Your task to perform on an android device: turn off smart reply in the gmail app Image 0: 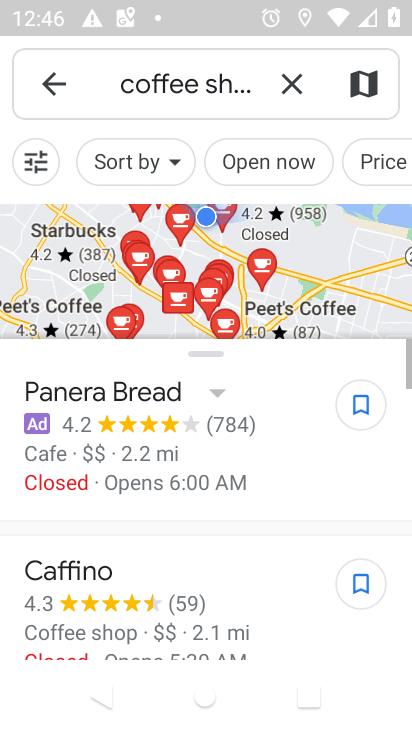
Step 0: press back button
Your task to perform on an android device: turn off smart reply in the gmail app Image 1: 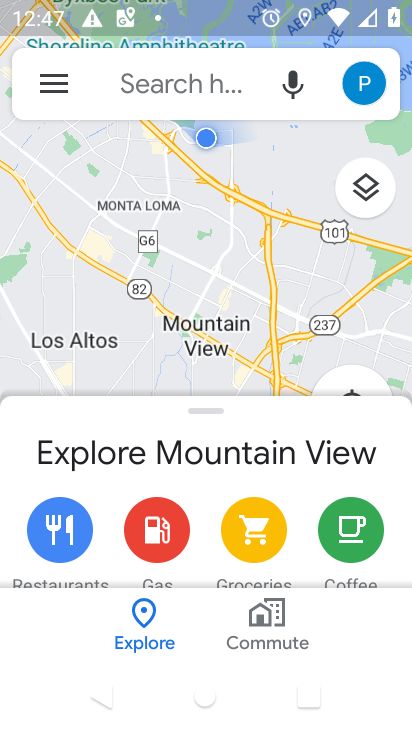
Step 1: press back button
Your task to perform on an android device: turn off smart reply in the gmail app Image 2: 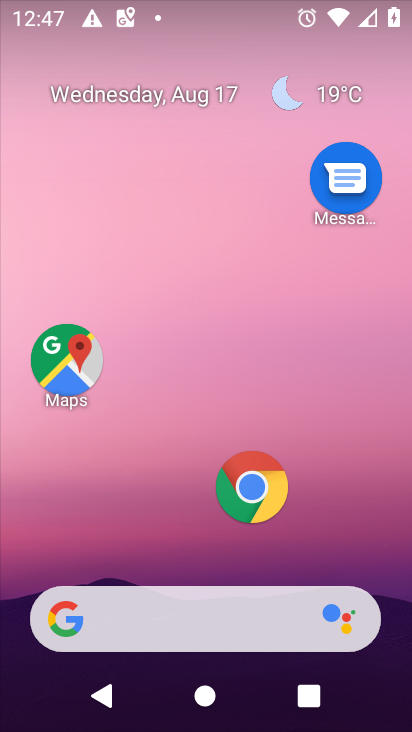
Step 2: drag from (162, 480) to (244, 46)
Your task to perform on an android device: turn off smart reply in the gmail app Image 3: 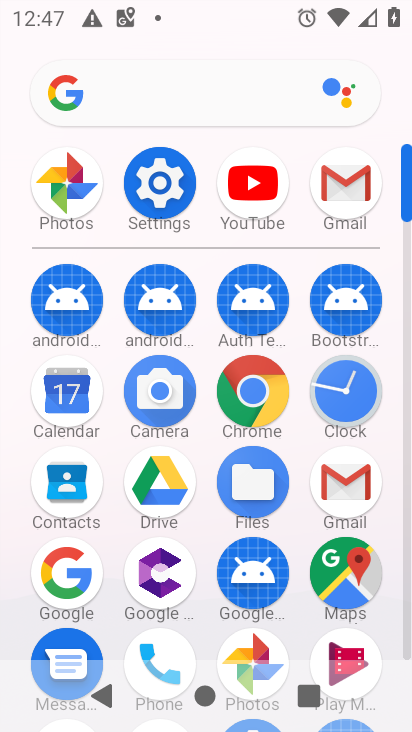
Step 3: click (358, 189)
Your task to perform on an android device: turn off smart reply in the gmail app Image 4: 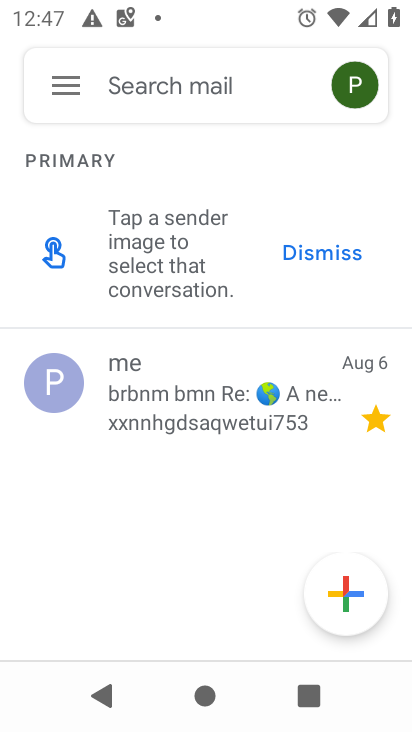
Step 4: click (51, 78)
Your task to perform on an android device: turn off smart reply in the gmail app Image 5: 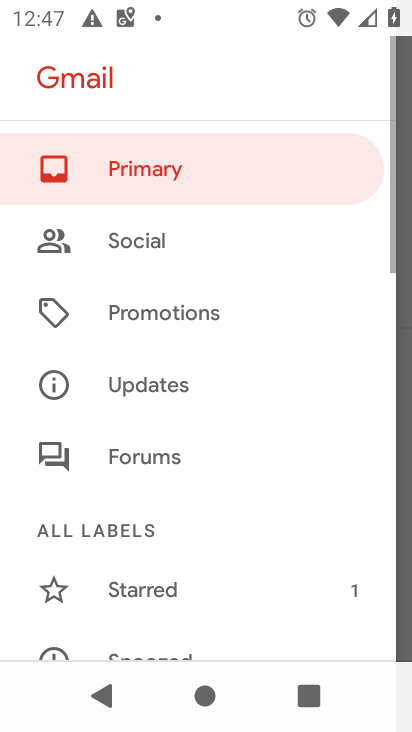
Step 5: drag from (261, 563) to (289, 18)
Your task to perform on an android device: turn off smart reply in the gmail app Image 6: 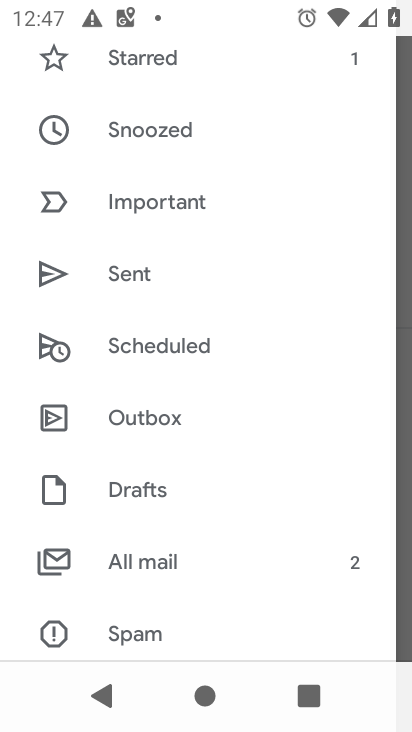
Step 6: drag from (130, 584) to (290, 93)
Your task to perform on an android device: turn off smart reply in the gmail app Image 7: 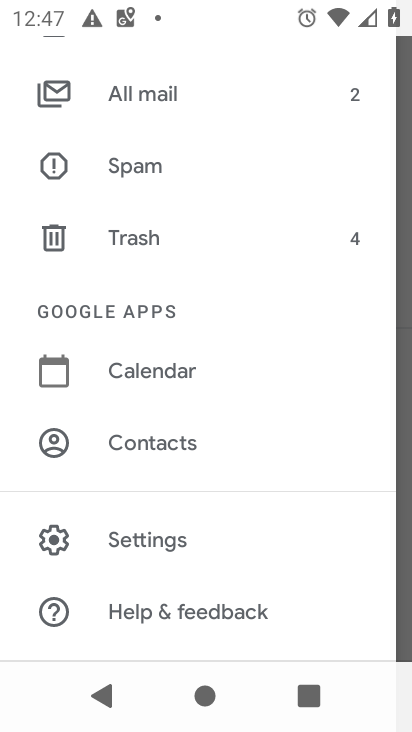
Step 7: click (164, 541)
Your task to perform on an android device: turn off smart reply in the gmail app Image 8: 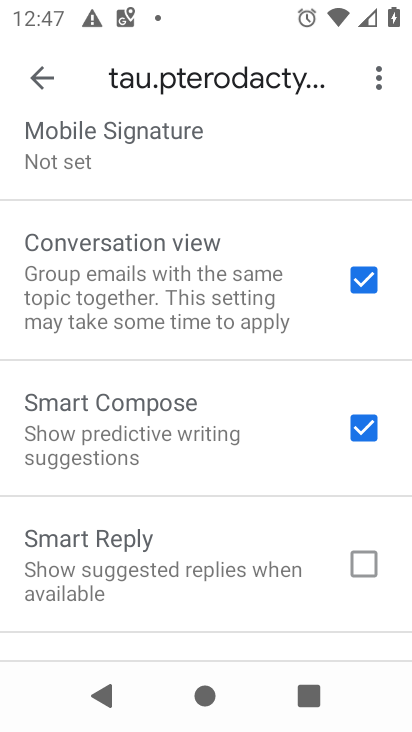
Step 8: task complete